Your task to perform on an android device: install app "Google Maps" Image 0: 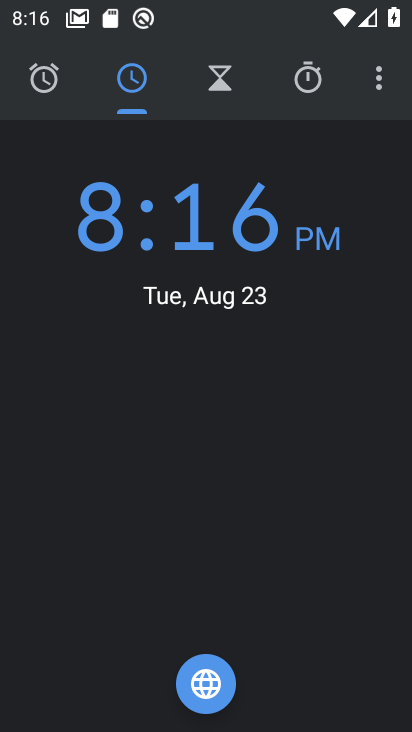
Step 0: press home button
Your task to perform on an android device: install app "Google Maps" Image 1: 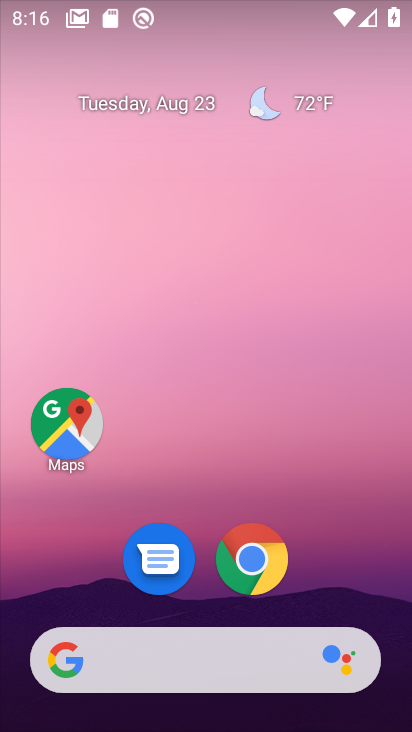
Step 1: drag from (195, 486) to (259, 147)
Your task to perform on an android device: install app "Google Maps" Image 2: 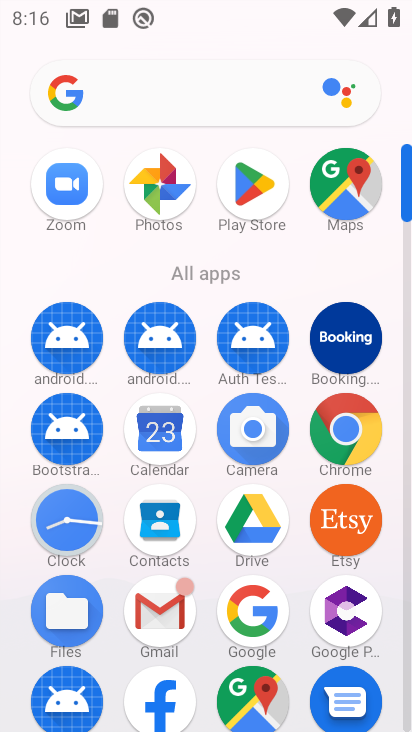
Step 2: click (260, 195)
Your task to perform on an android device: install app "Google Maps" Image 3: 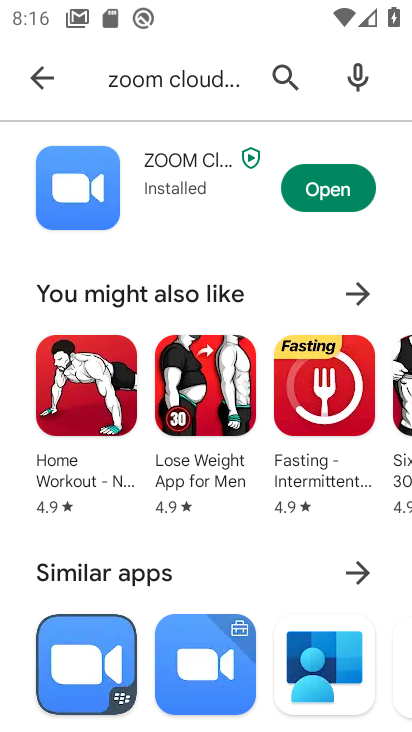
Step 3: click (282, 79)
Your task to perform on an android device: install app "Google Maps" Image 4: 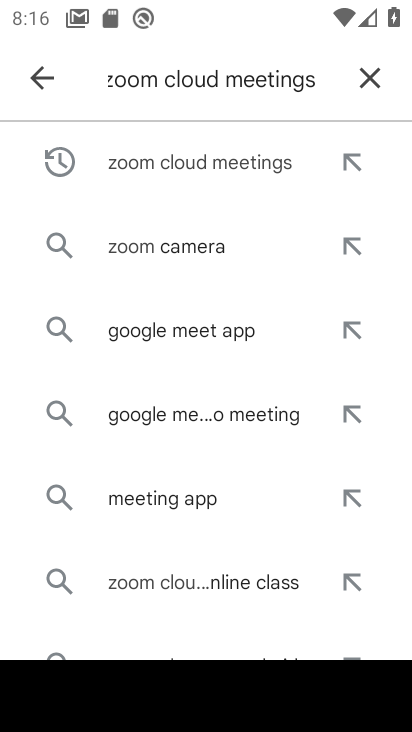
Step 4: click (377, 74)
Your task to perform on an android device: install app "Google Maps" Image 5: 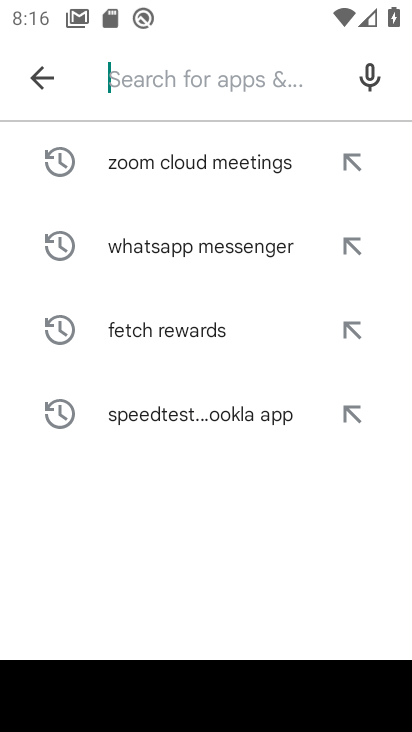
Step 5: type "Google Maps"
Your task to perform on an android device: install app "Google Maps" Image 6: 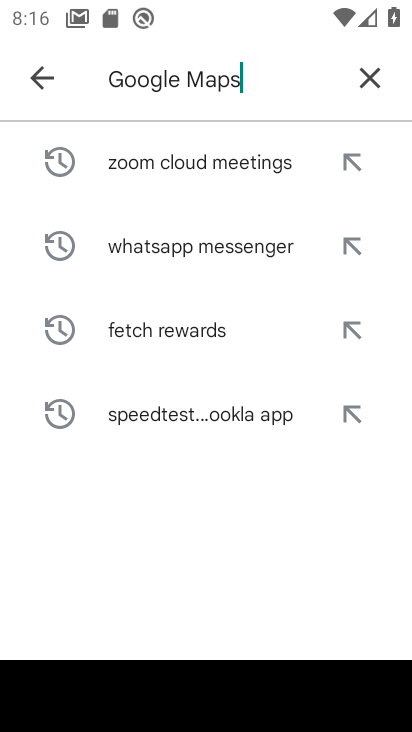
Step 6: type ""
Your task to perform on an android device: install app "Google Maps" Image 7: 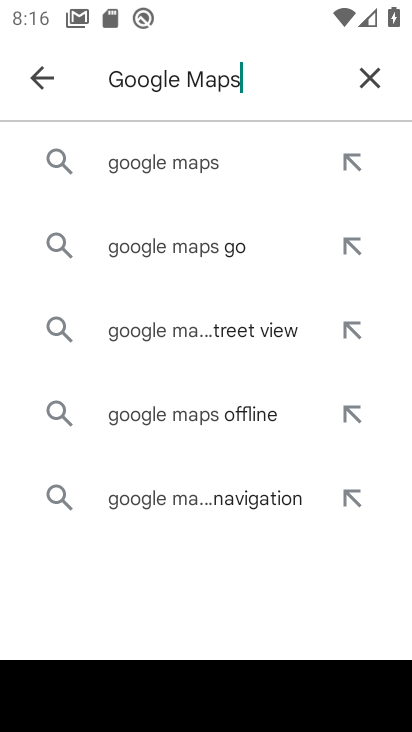
Step 7: click (217, 163)
Your task to perform on an android device: install app "Google Maps" Image 8: 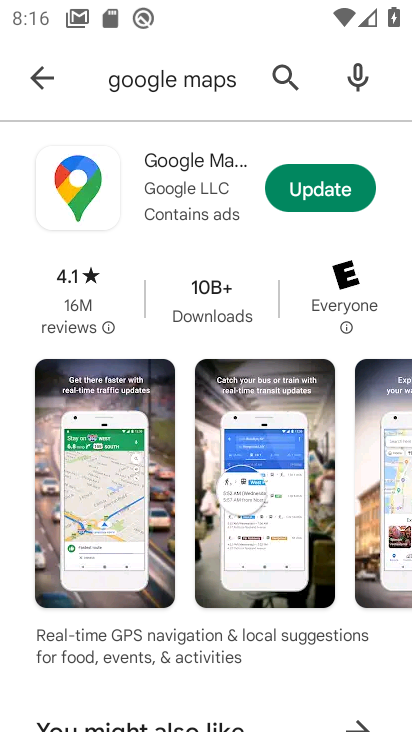
Step 8: task complete